Your task to perform on an android device: change alarm snooze length Image 0: 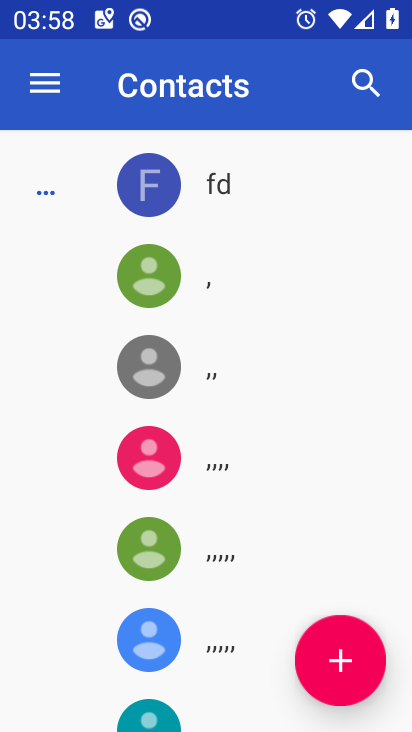
Step 0: press back button
Your task to perform on an android device: change alarm snooze length Image 1: 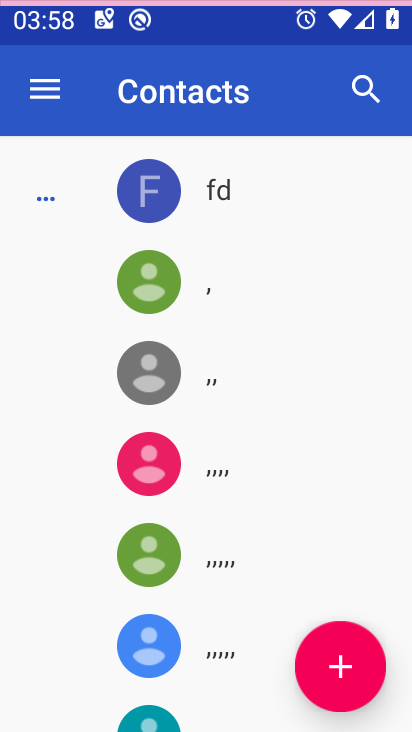
Step 1: press back button
Your task to perform on an android device: change alarm snooze length Image 2: 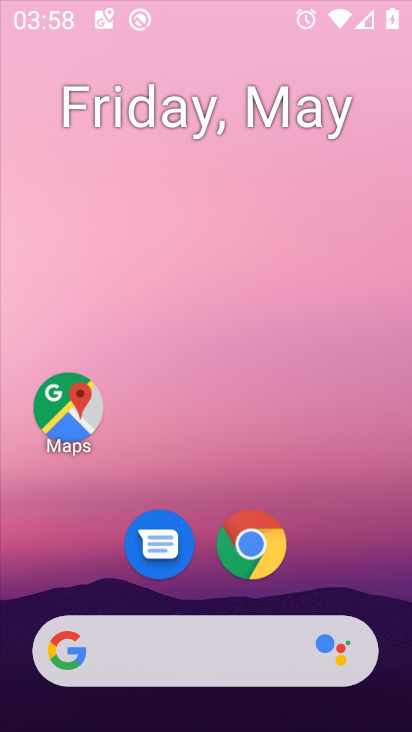
Step 2: press back button
Your task to perform on an android device: change alarm snooze length Image 3: 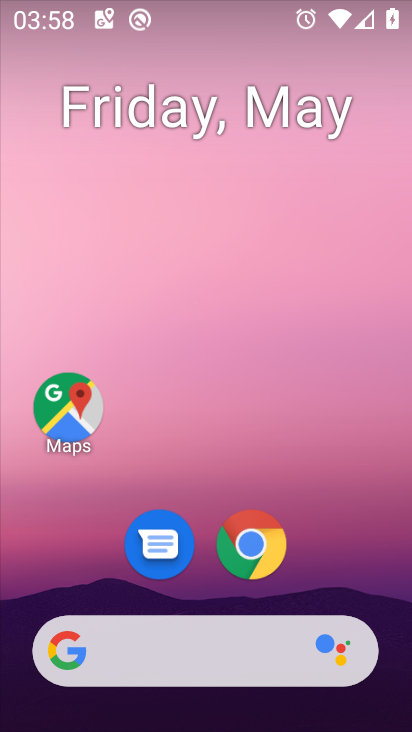
Step 3: drag from (354, 611) to (181, 105)
Your task to perform on an android device: change alarm snooze length Image 4: 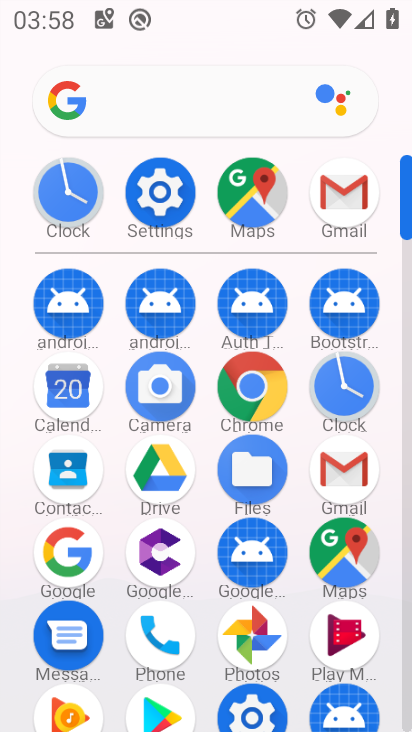
Step 4: click (338, 382)
Your task to perform on an android device: change alarm snooze length Image 5: 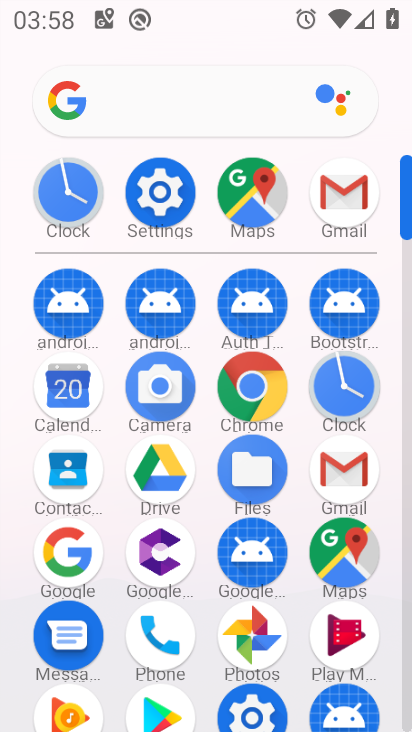
Step 5: click (338, 386)
Your task to perform on an android device: change alarm snooze length Image 6: 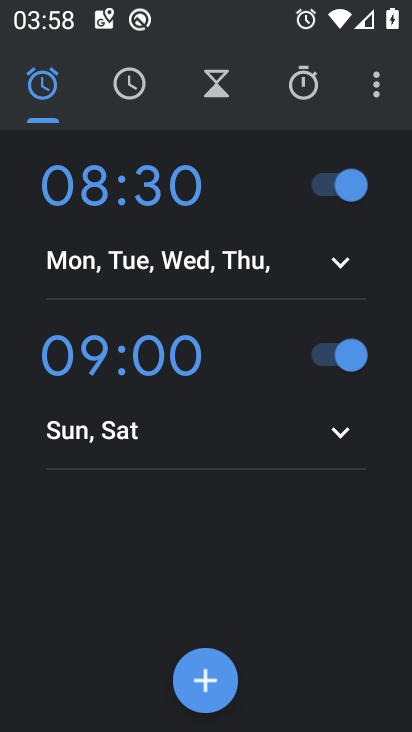
Step 6: click (329, 403)
Your task to perform on an android device: change alarm snooze length Image 7: 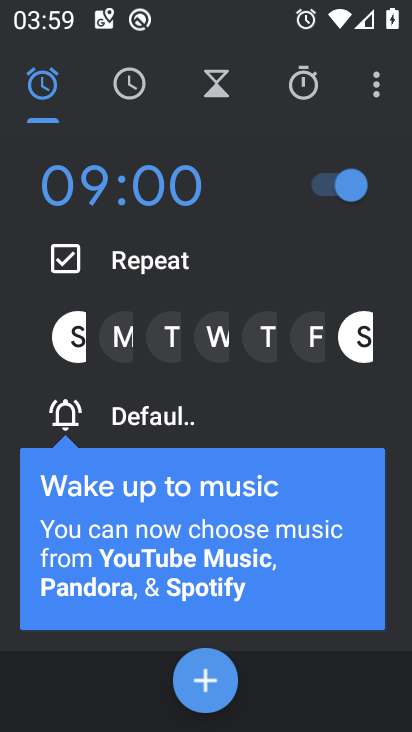
Step 7: click (376, 83)
Your task to perform on an android device: change alarm snooze length Image 8: 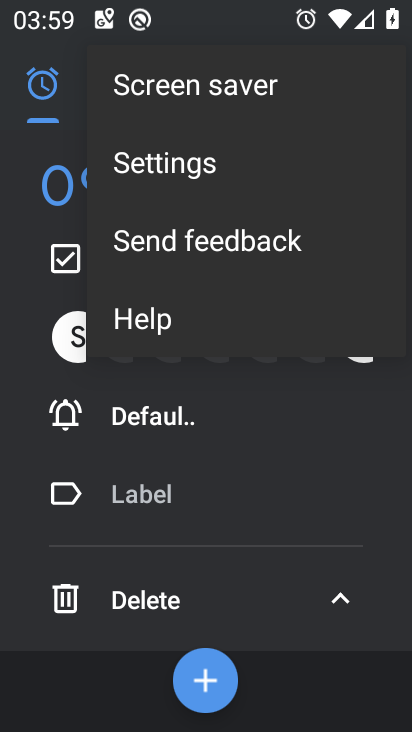
Step 8: click (213, 167)
Your task to perform on an android device: change alarm snooze length Image 9: 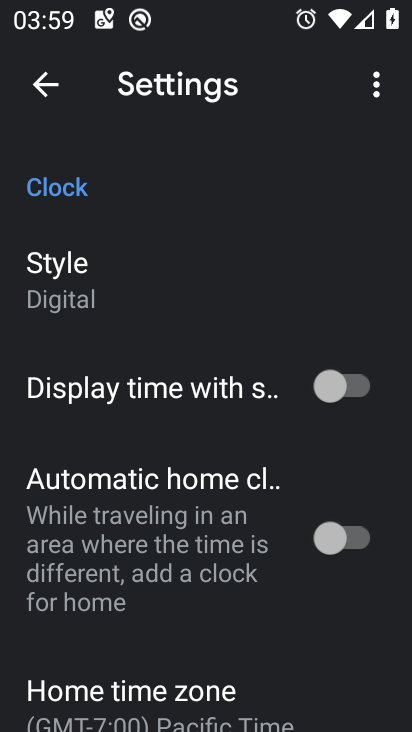
Step 9: drag from (202, 509) to (94, 96)
Your task to perform on an android device: change alarm snooze length Image 10: 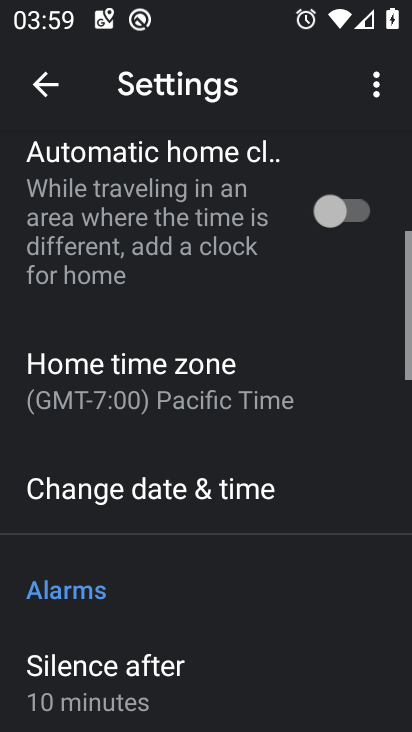
Step 10: drag from (137, 432) to (99, 102)
Your task to perform on an android device: change alarm snooze length Image 11: 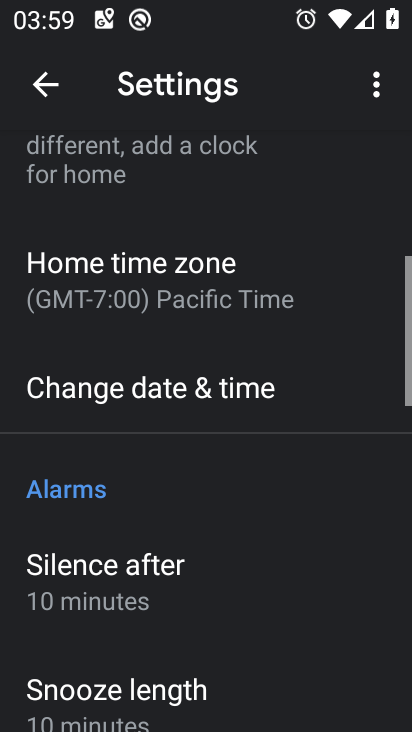
Step 11: drag from (161, 432) to (153, 64)
Your task to perform on an android device: change alarm snooze length Image 12: 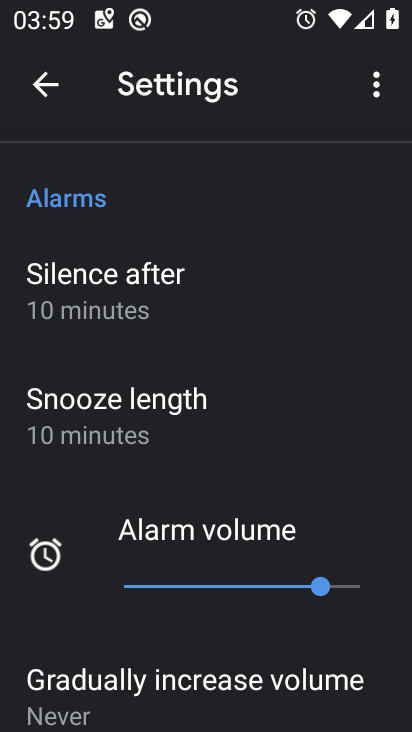
Step 12: click (97, 432)
Your task to perform on an android device: change alarm snooze length Image 13: 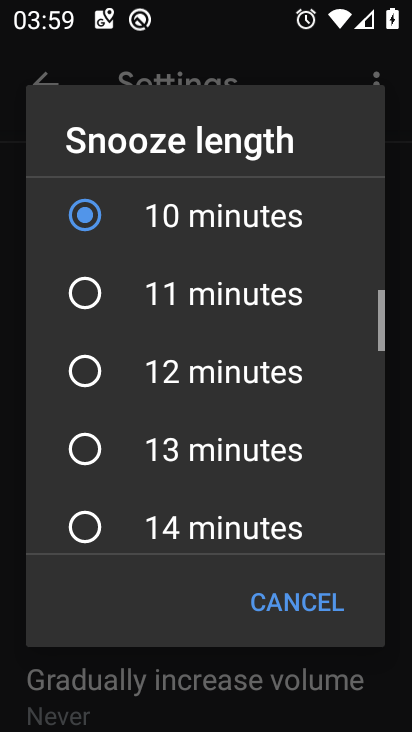
Step 13: click (78, 373)
Your task to perform on an android device: change alarm snooze length Image 14: 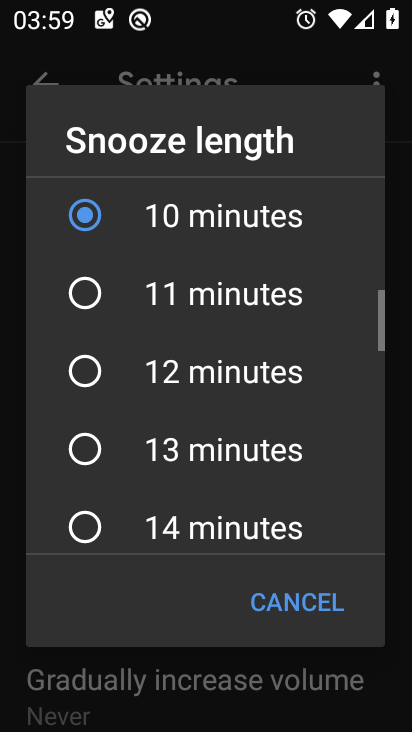
Step 14: click (80, 373)
Your task to perform on an android device: change alarm snooze length Image 15: 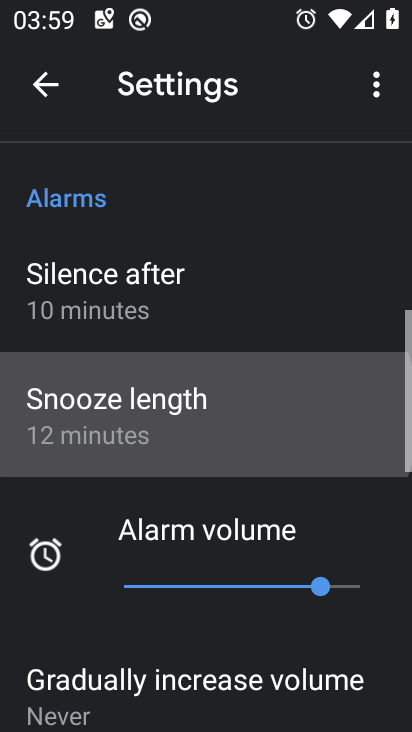
Step 15: click (87, 365)
Your task to perform on an android device: change alarm snooze length Image 16: 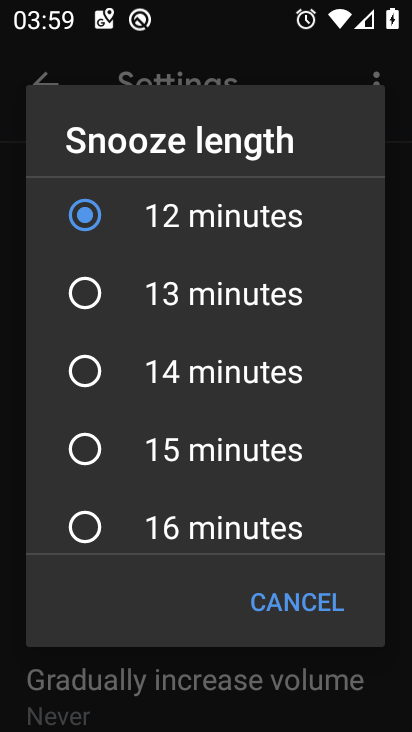
Step 16: task complete